Your task to perform on an android device: Empty the shopping cart on target.com. Add "beats solo 3" to the cart on target.com, then select checkout. Image 0: 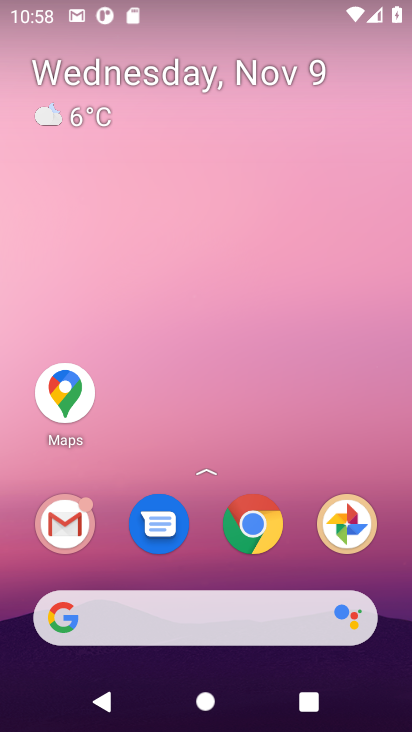
Step 0: click (248, 529)
Your task to perform on an android device: Empty the shopping cart on target.com. Add "beats solo 3" to the cart on target.com, then select checkout. Image 1: 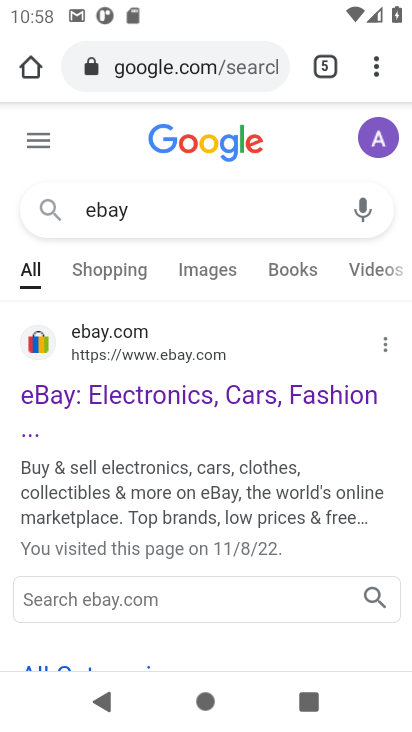
Step 1: click (327, 60)
Your task to perform on an android device: Empty the shopping cart on target.com. Add "beats solo 3" to the cart on target.com, then select checkout. Image 2: 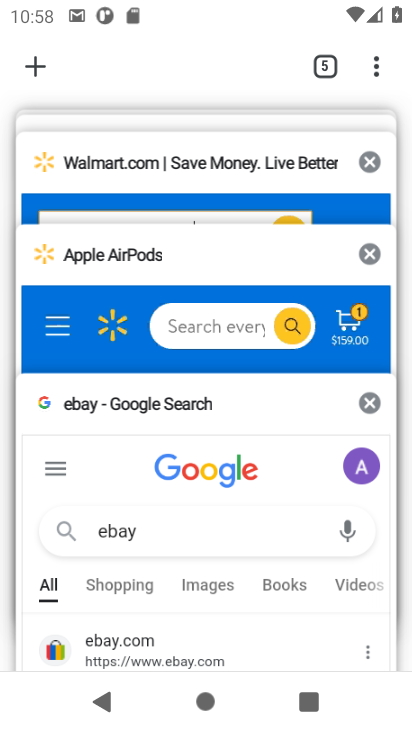
Step 2: click (66, 147)
Your task to perform on an android device: Empty the shopping cart on target.com. Add "beats solo 3" to the cart on target.com, then select checkout. Image 3: 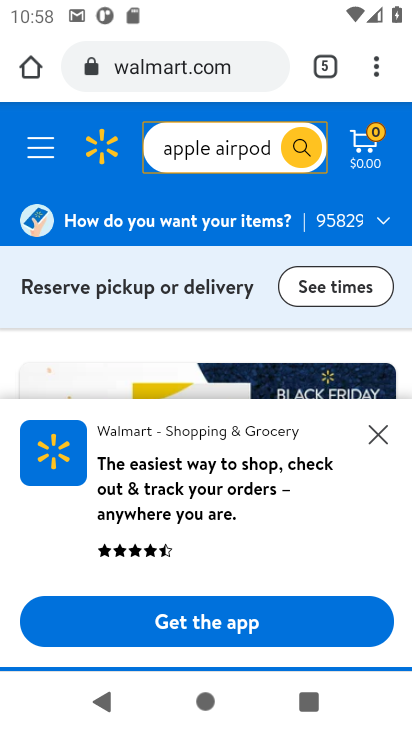
Step 3: click (318, 73)
Your task to perform on an android device: Empty the shopping cart on target.com. Add "beats solo 3" to the cart on target.com, then select checkout. Image 4: 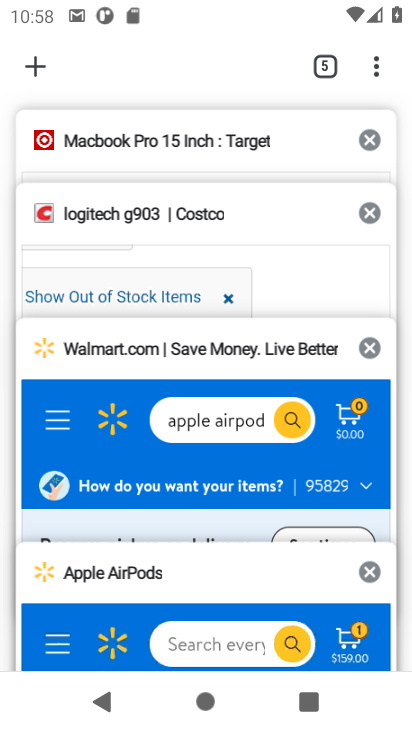
Step 4: click (187, 141)
Your task to perform on an android device: Empty the shopping cart on target.com. Add "beats solo 3" to the cart on target.com, then select checkout. Image 5: 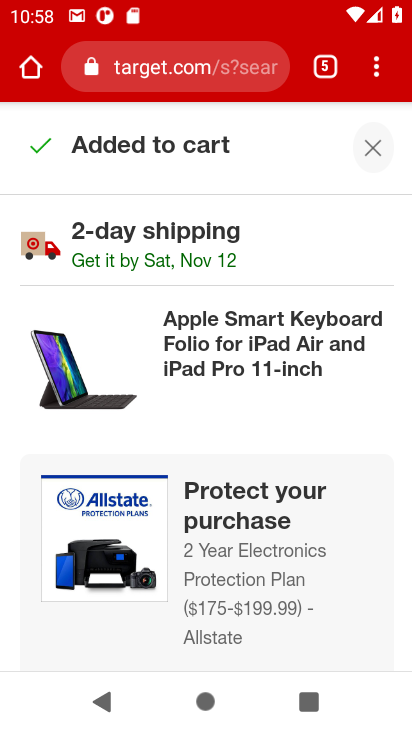
Step 5: click (370, 148)
Your task to perform on an android device: Empty the shopping cart on target.com. Add "beats solo 3" to the cart on target.com, then select checkout. Image 6: 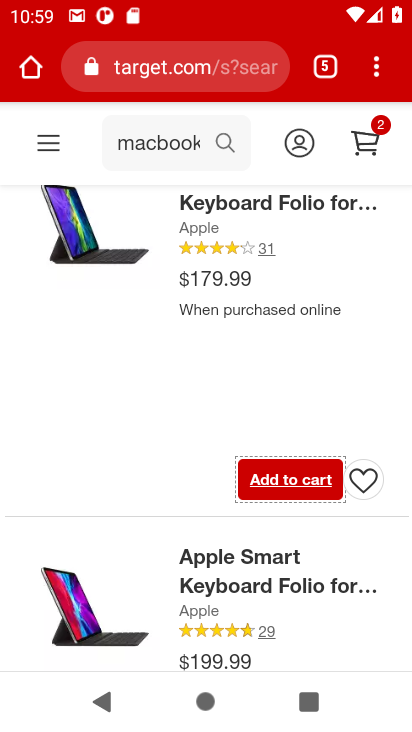
Step 6: click (371, 145)
Your task to perform on an android device: Empty the shopping cart on target.com. Add "beats solo 3" to the cart on target.com, then select checkout. Image 7: 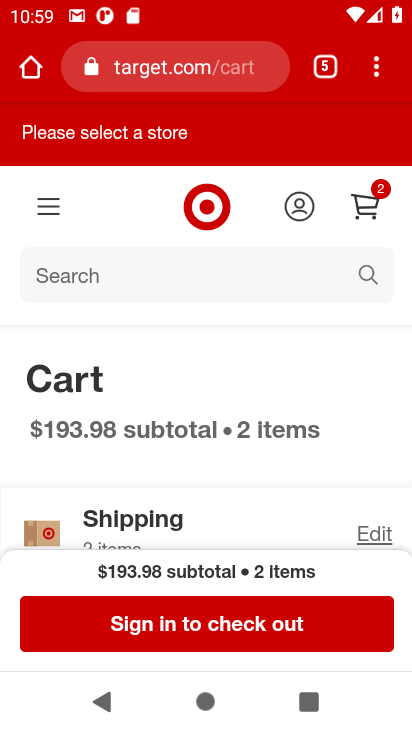
Step 7: drag from (237, 468) to (303, 226)
Your task to perform on an android device: Empty the shopping cart on target.com. Add "beats solo 3" to the cart on target.com, then select checkout. Image 8: 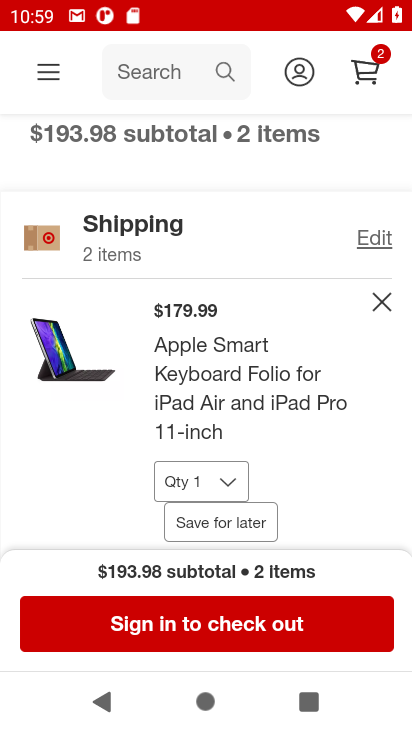
Step 8: click (382, 300)
Your task to perform on an android device: Empty the shopping cart on target.com. Add "beats solo 3" to the cart on target.com, then select checkout. Image 9: 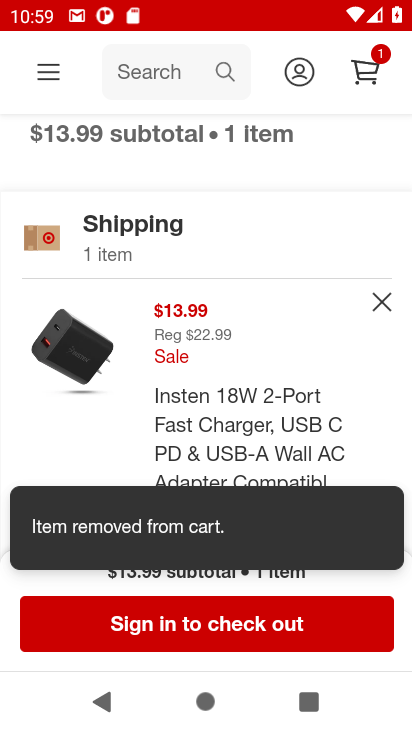
Step 9: click (382, 300)
Your task to perform on an android device: Empty the shopping cart on target.com. Add "beats solo 3" to the cart on target.com, then select checkout. Image 10: 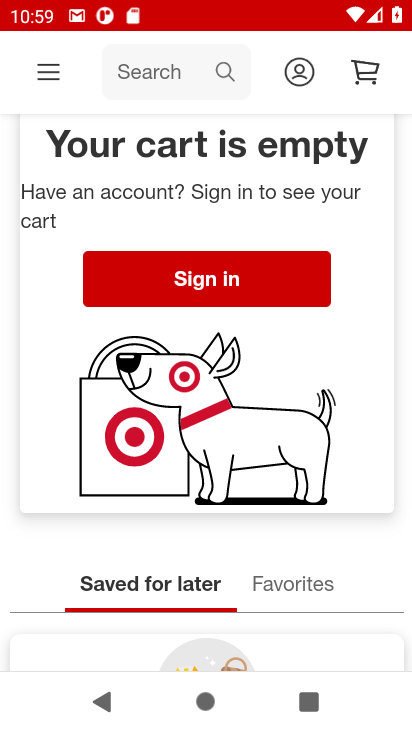
Step 10: click (198, 70)
Your task to perform on an android device: Empty the shopping cart on target.com. Add "beats solo 3" to the cart on target.com, then select checkout. Image 11: 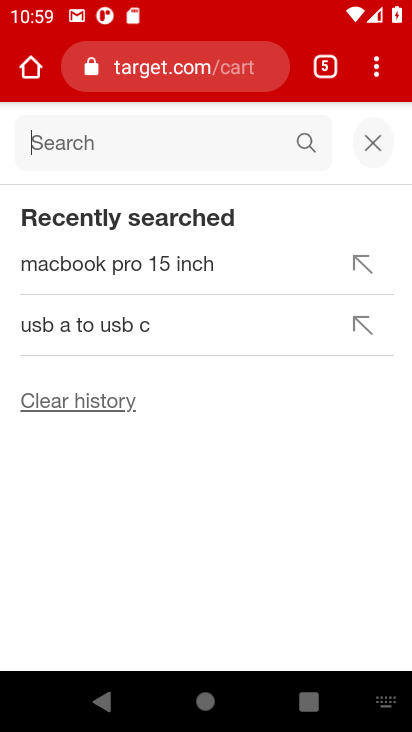
Step 11: type "beats solo 3"
Your task to perform on an android device: Empty the shopping cart on target.com. Add "beats solo 3" to the cart on target.com, then select checkout. Image 12: 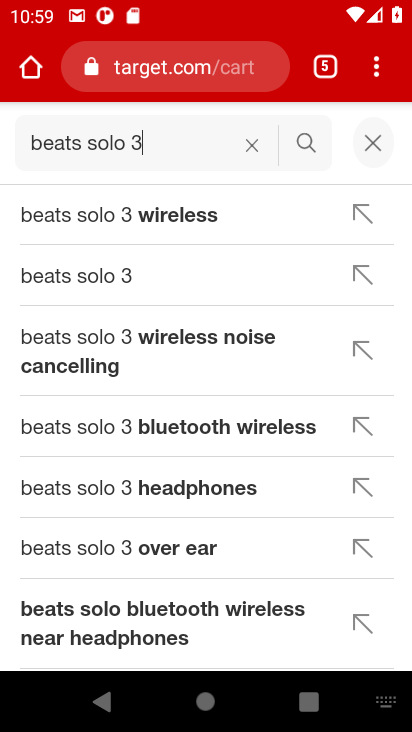
Step 12: click (215, 213)
Your task to perform on an android device: Empty the shopping cart on target.com. Add "beats solo 3" to the cart on target.com, then select checkout. Image 13: 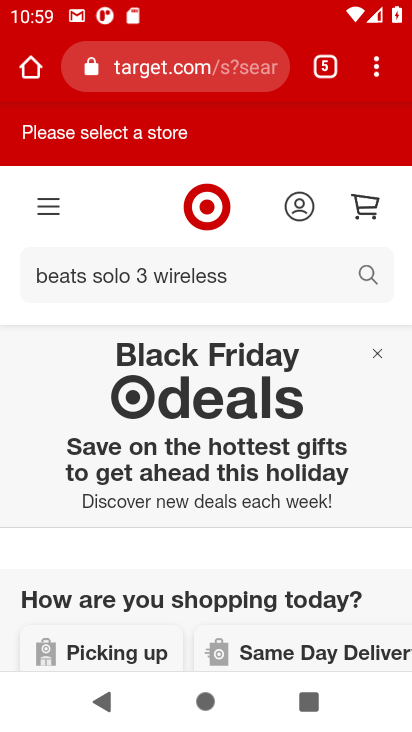
Step 13: drag from (162, 613) to (182, 332)
Your task to perform on an android device: Empty the shopping cart on target.com. Add "beats solo 3" to the cart on target.com, then select checkout. Image 14: 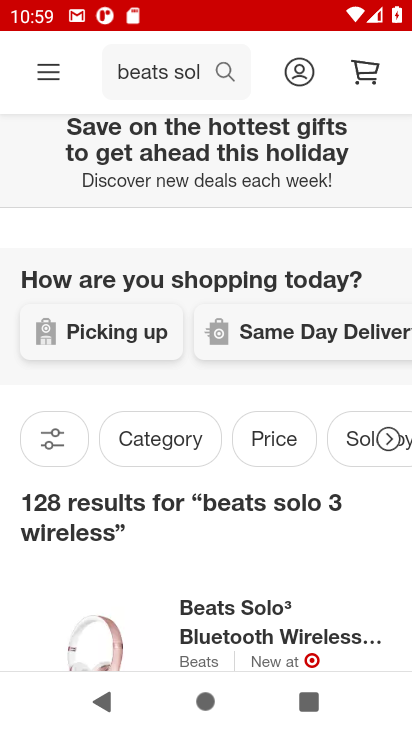
Step 14: drag from (324, 526) to (294, 331)
Your task to perform on an android device: Empty the shopping cart on target.com. Add "beats solo 3" to the cart on target.com, then select checkout. Image 15: 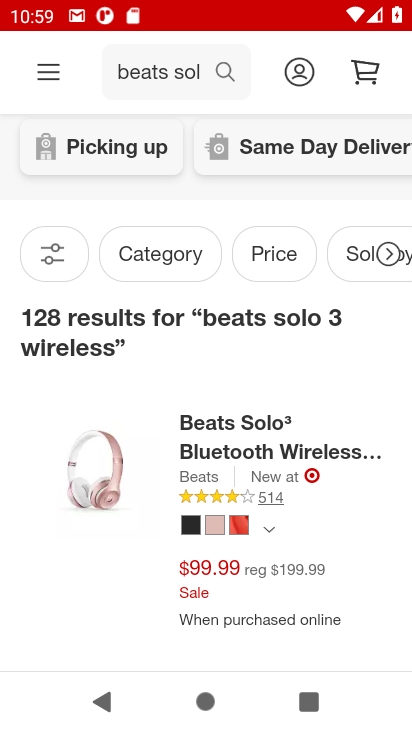
Step 15: click (249, 447)
Your task to perform on an android device: Empty the shopping cart on target.com. Add "beats solo 3" to the cart on target.com, then select checkout. Image 16: 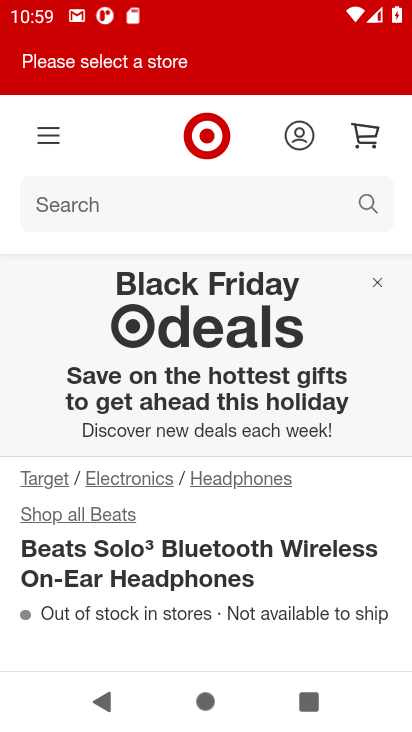
Step 16: drag from (308, 552) to (293, 47)
Your task to perform on an android device: Empty the shopping cart on target.com. Add "beats solo 3" to the cart on target.com, then select checkout. Image 17: 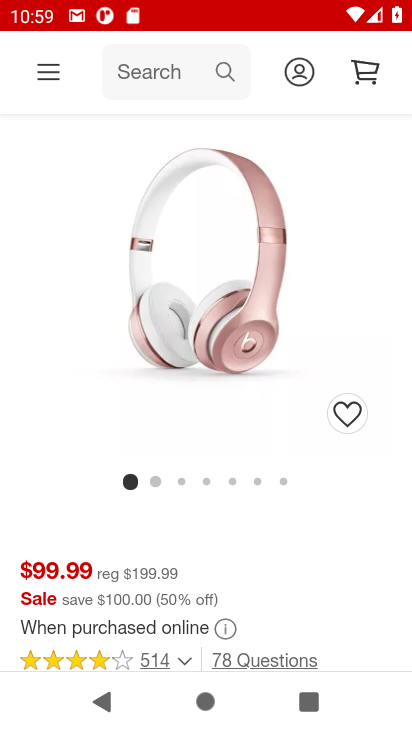
Step 17: drag from (287, 488) to (206, 276)
Your task to perform on an android device: Empty the shopping cart on target.com. Add "beats solo 3" to the cart on target.com, then select checkout. Image 18: 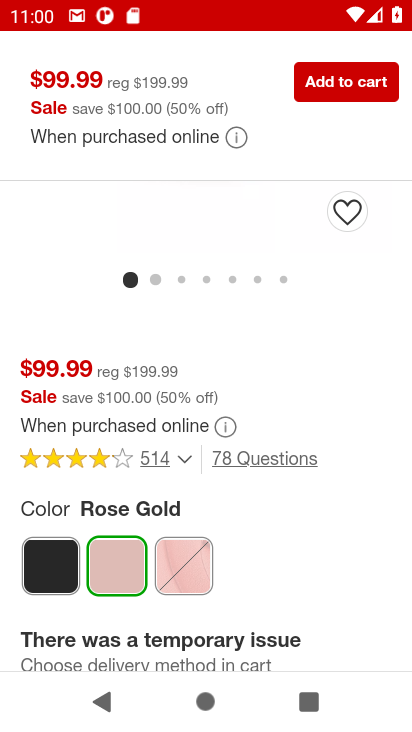
Step 18: drag from (269, 528) to (262, 334)
Your task to perform on an android device: Empty the shopping cart on target.com. Add "beats solo 3" to the cart on target.com, then select checkout. Image 19: 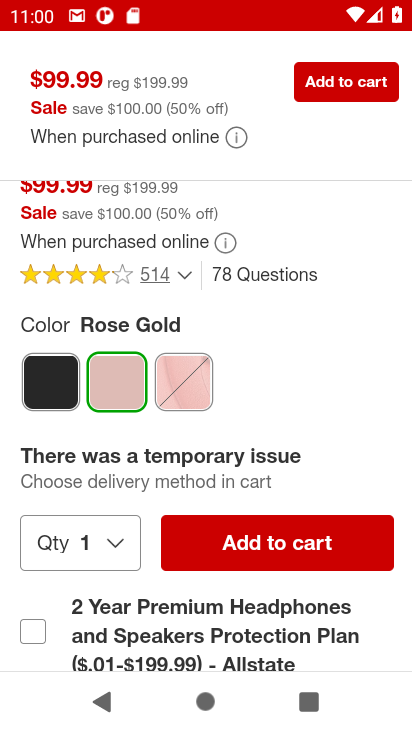
Step 19: click (302, 542)
Your task to perform on an android device: Empty the shopping cart on target.com. Add "beats solo 3" to the cart on target.com, then select checkout. Image 20: 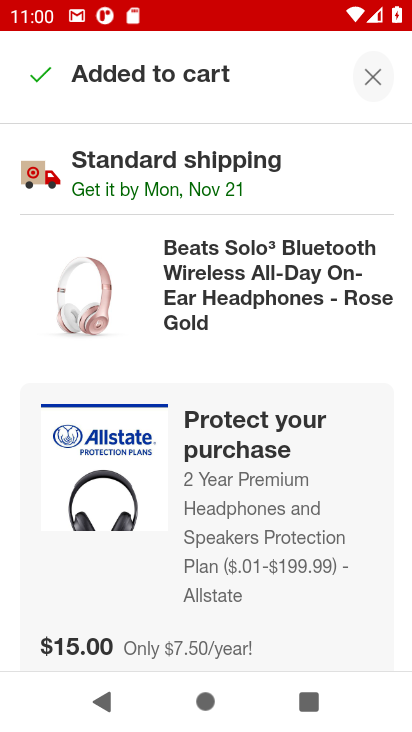
Step 20: drag from (257, 642) to (219, 117)
Your task to perform on an android device: Empty the shopping cart on target.com. Add "beats solo 3" to the cart on target.com, then select checkout. Image 21: 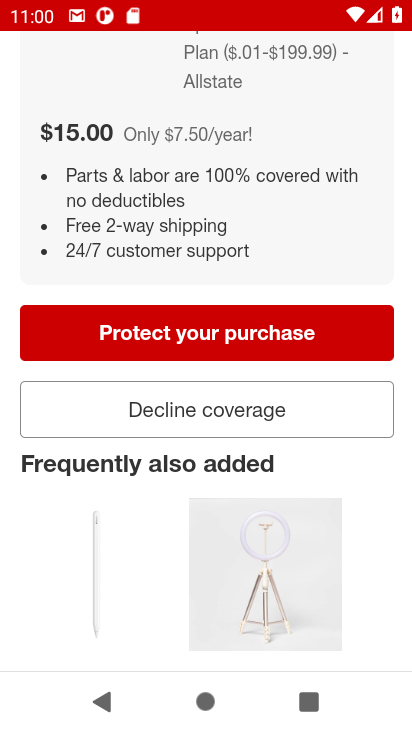
Step 21: click (248, 407)
Your task to perform on an android device: Empty the shopping cart on target.com. Add "beats solo 3" to the cart on target.com, then select checkout. Image 22: 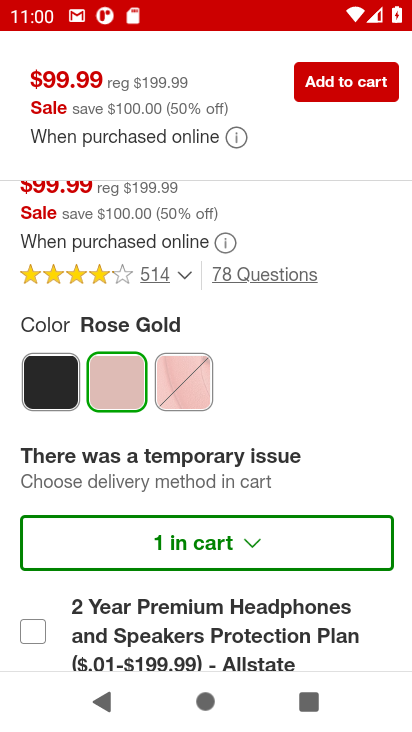
Step 22: drag from (319, 217) to (268, 715)
Your task to perform on an android device: Empty the shopping cart on target.com. Add "beats solo 3" to the cart on target.com, then select checkout. Image 23: 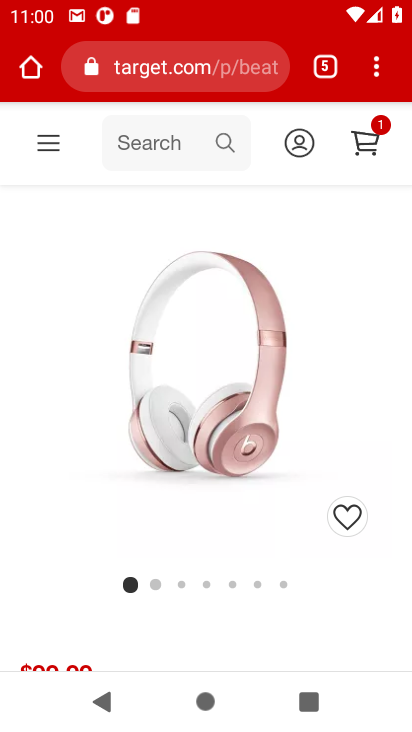
Step 23: click (365, 131)
Your task to perform on an android device: Empty the shopping cart on target.com. Add "beats solo 3" to the cart on target.com, then select checkout. Image 24: 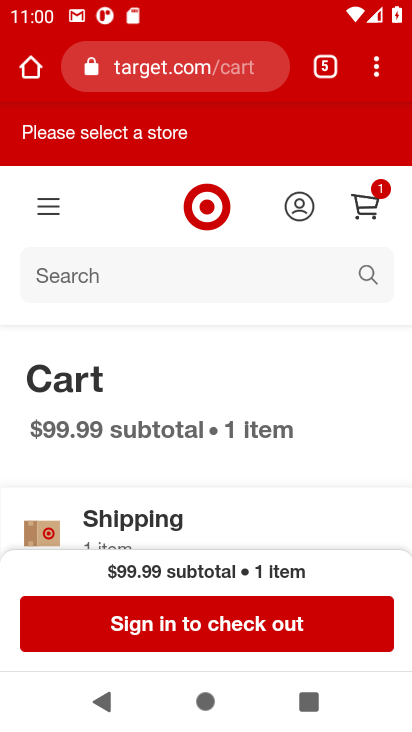
Step 24: click (207, 620)
Your task to perform on an android device: Empty the shopping cart on target.com. Add "beats solo 3" to the cart on target.com, then select checkout. Image 25: 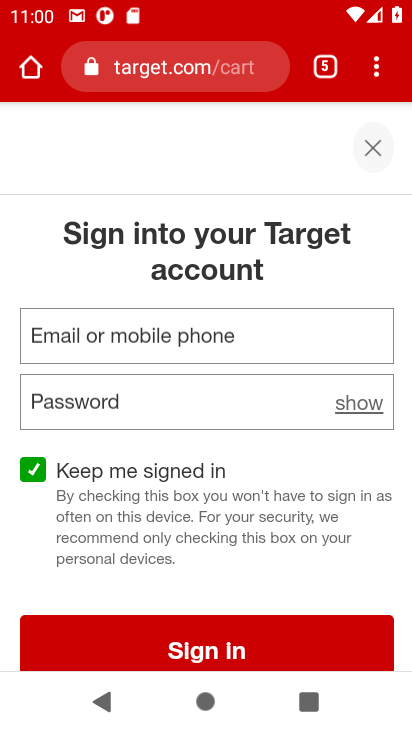
Step 25: task complete